Your task to perform on an android device: turn on translation in the chrome app Image 0: 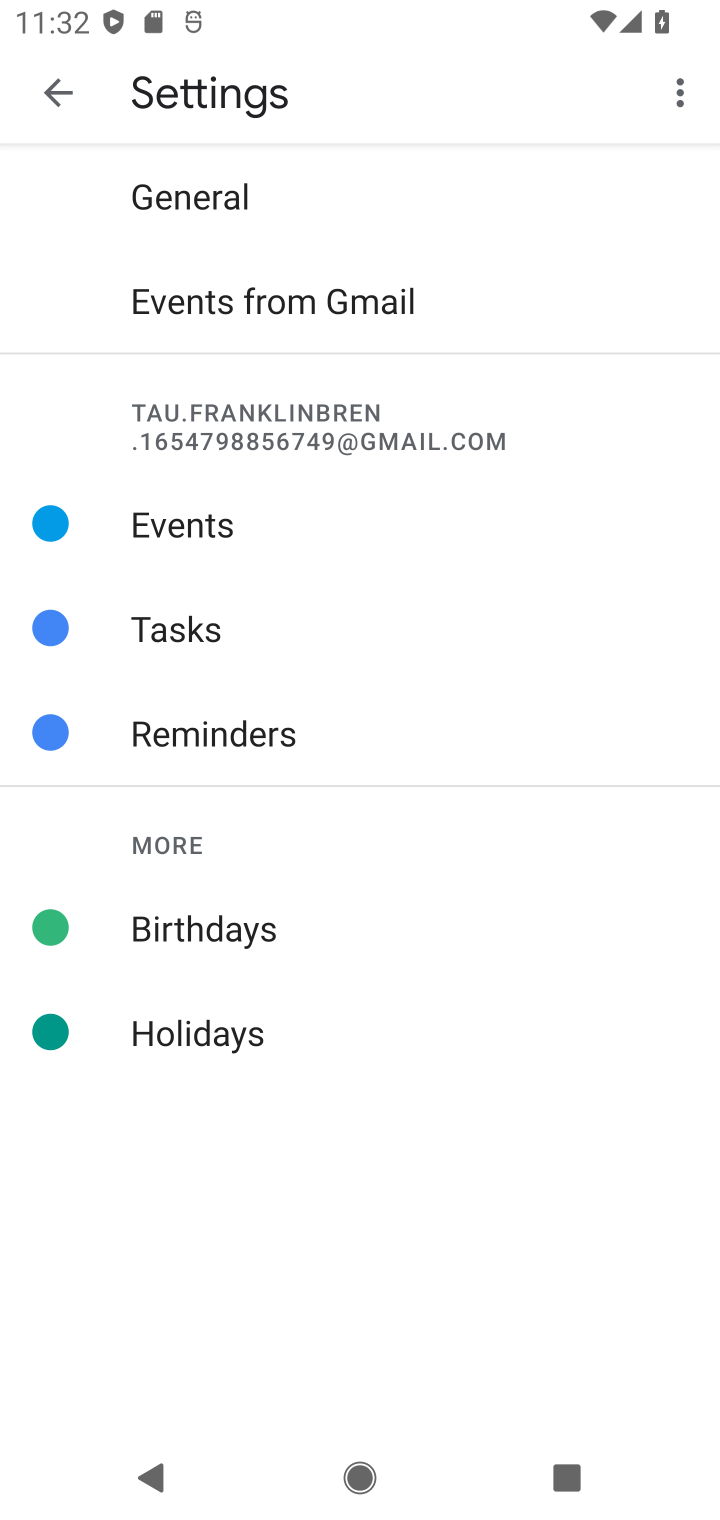
Step 0: press home button
Your task to perform on an android device: turn on translation in the chrome app Image 1: 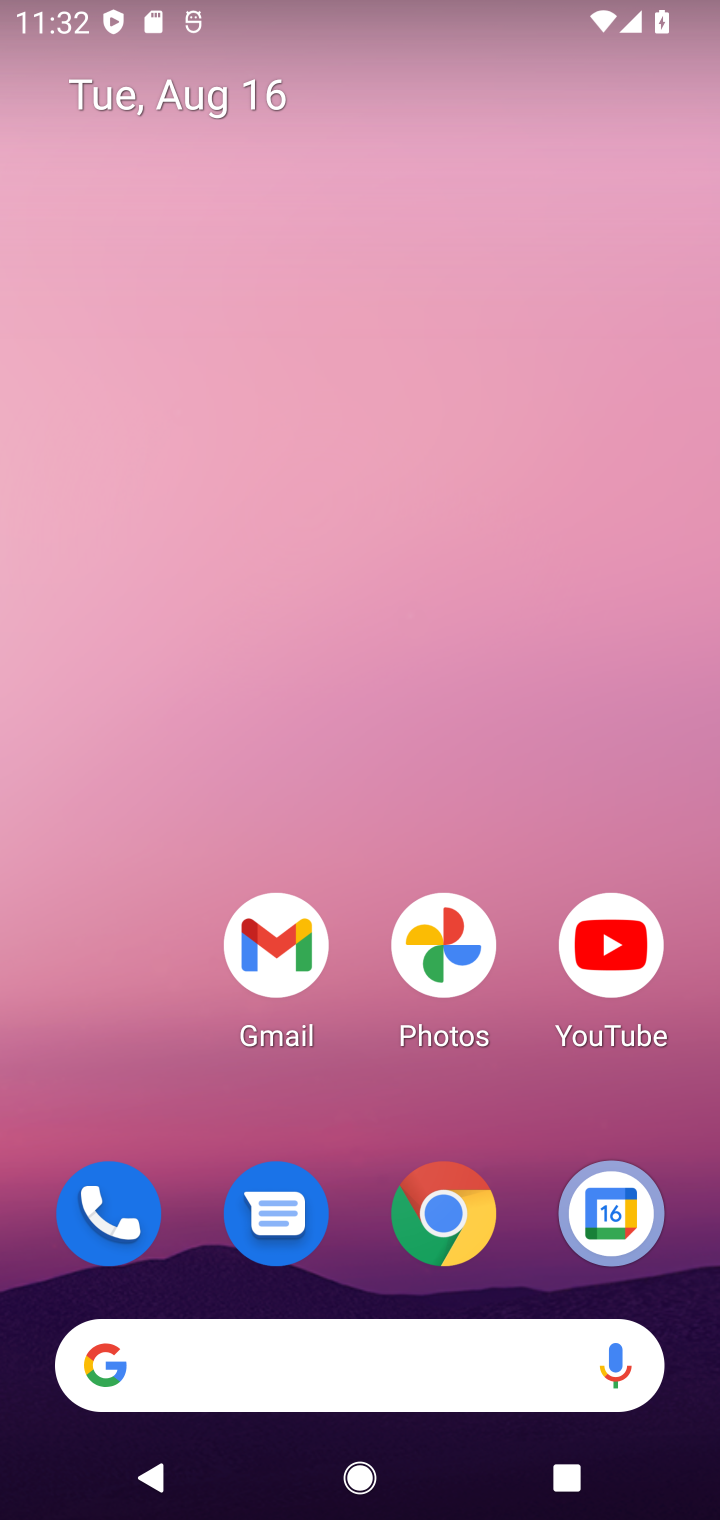
Step 1: drag from (522, 1006) to (509, 32)
Your task to perform on an android device: turn on translation in the chrome app Image 2: 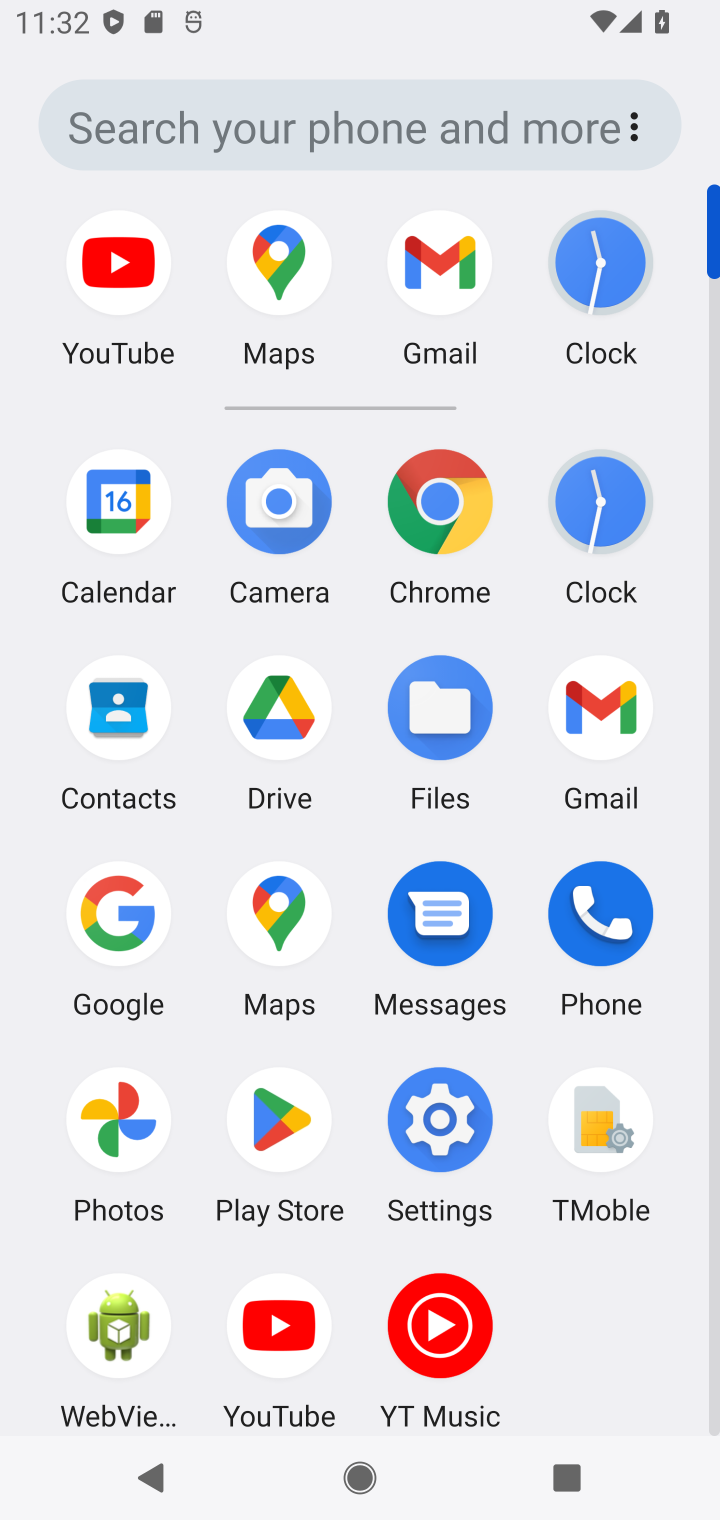
Step 2: click (441, 499)
Your task to perform on an android device: turn on translation in the chrome app Image 3: 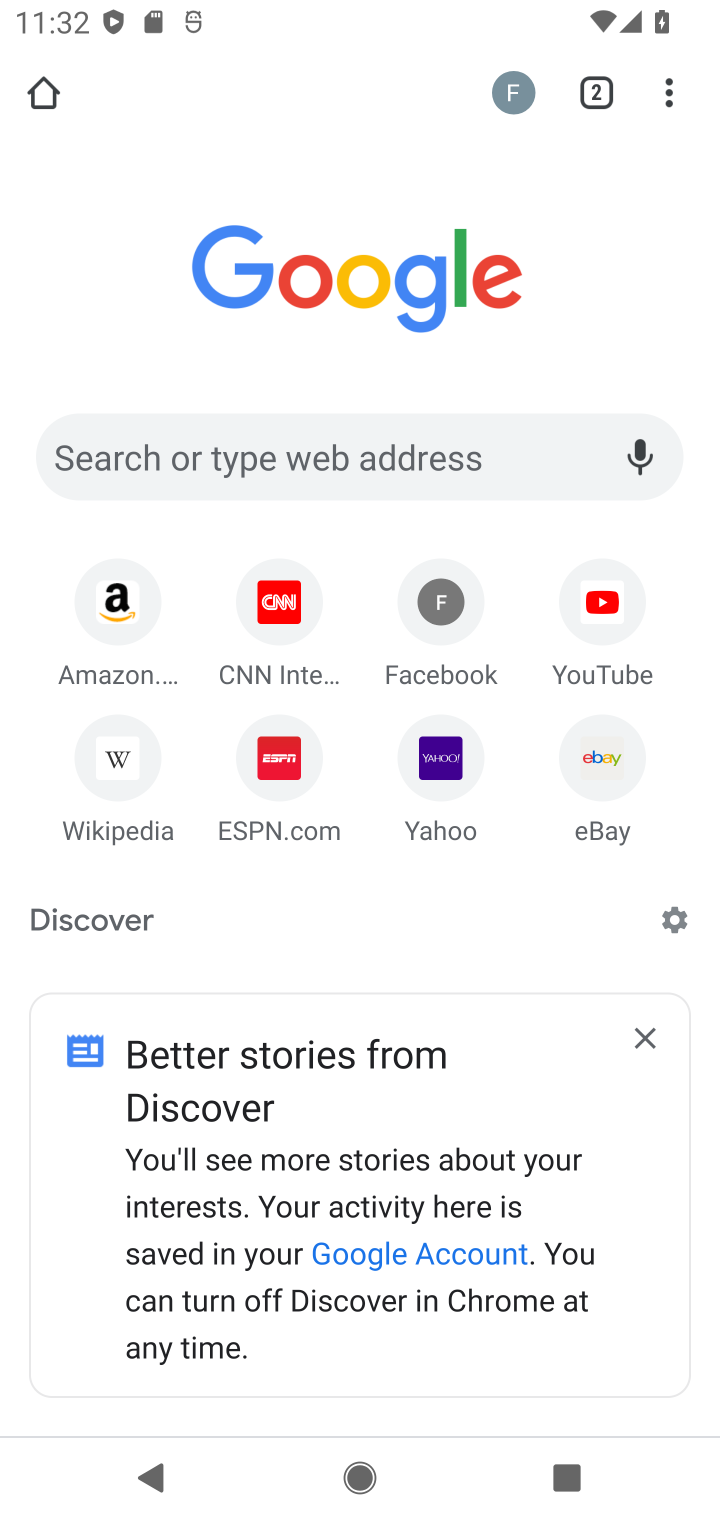
Step 3: drag from (679, 91) to (435, 998)
Your task to perform on an android device: turn on translation in the chrome app Image 4: 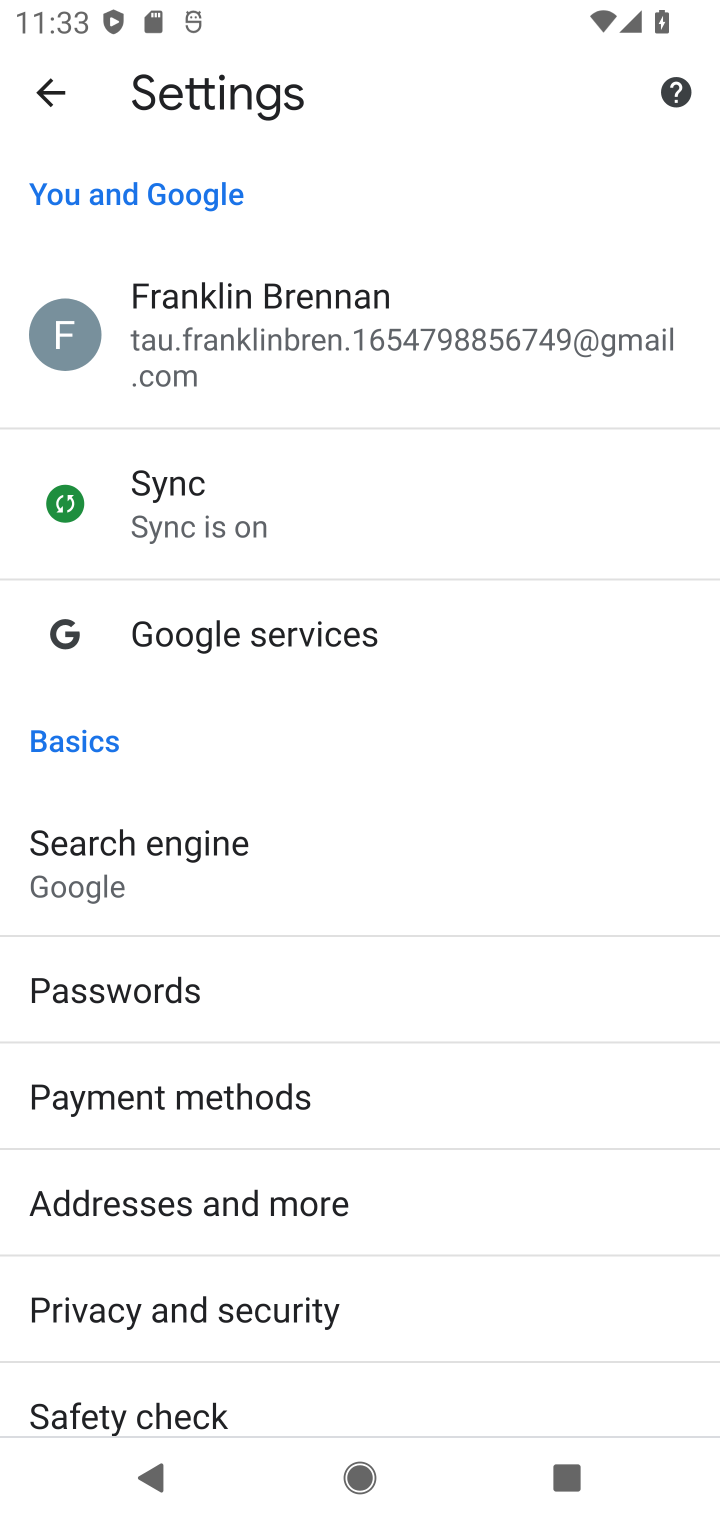
Step 4: drag from (317, 1325) to (360, 246)
Your task to perform on an android device: turn on translation in the chrome app Image 5: 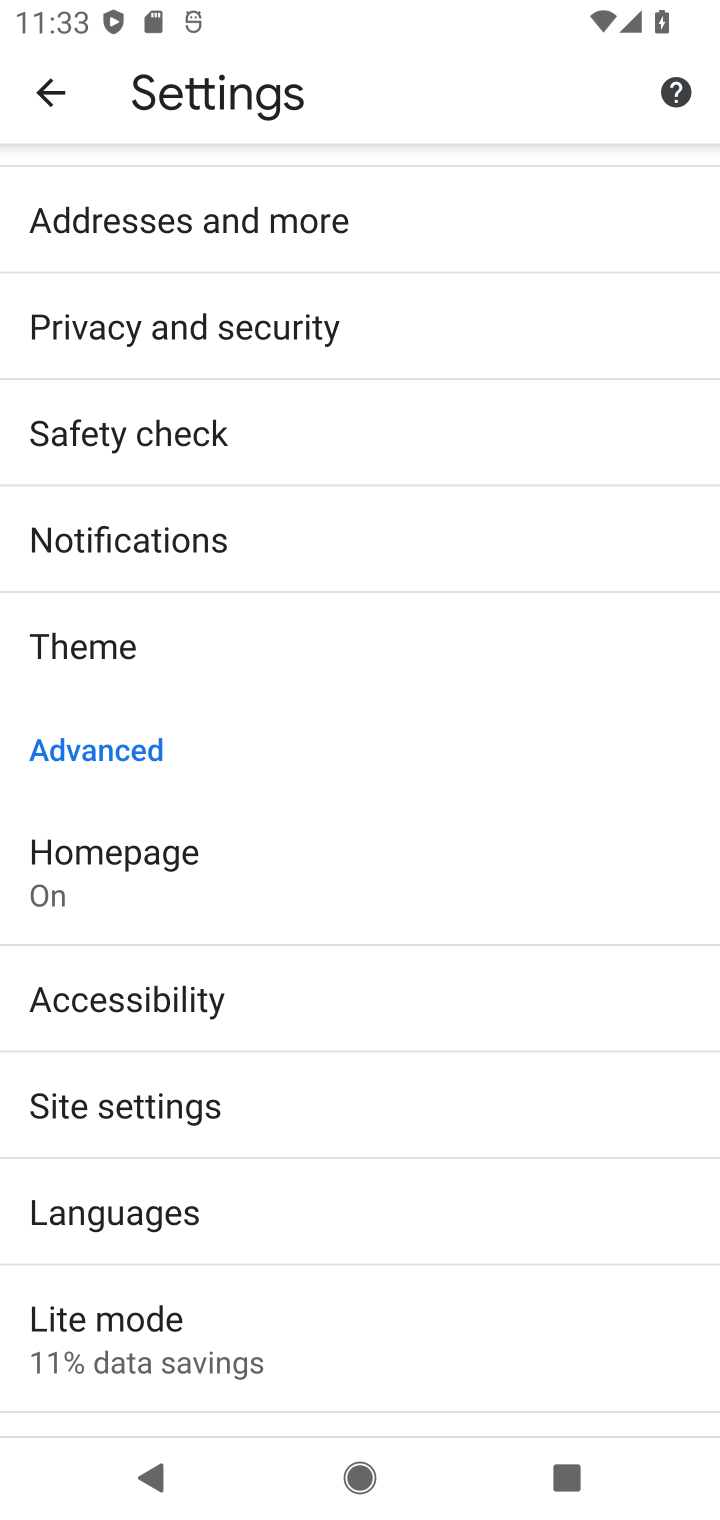
Step 5: click (145, 1223)
Your task to perform on an android device: turn on translation in the chrome app Image 6: 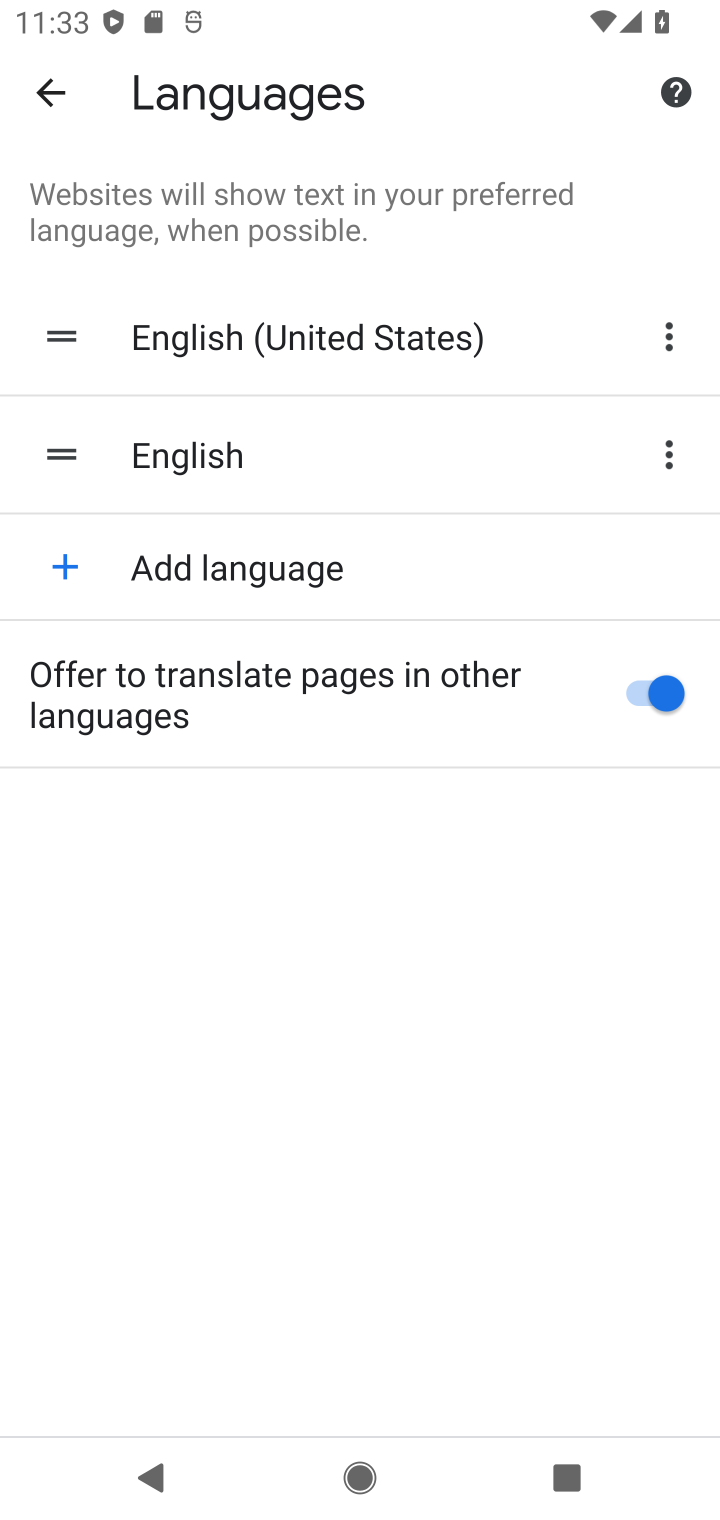
Step 6: task complete